Your task to perform on an android device: turn off airplane mode Image 0: 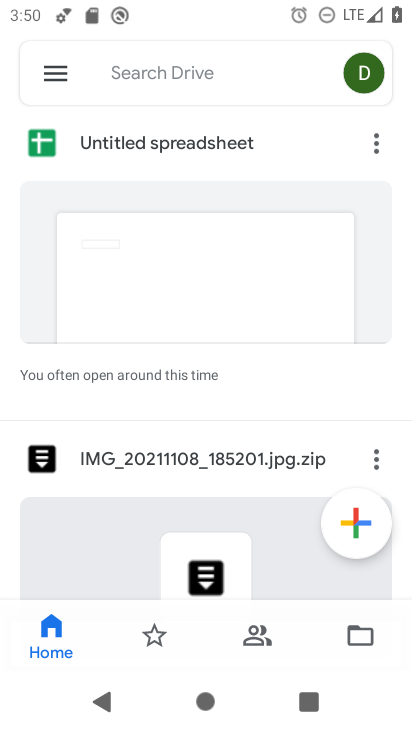
Step 0: press home button
Your task to perform on an android device: turn off airplane mode Image 1: 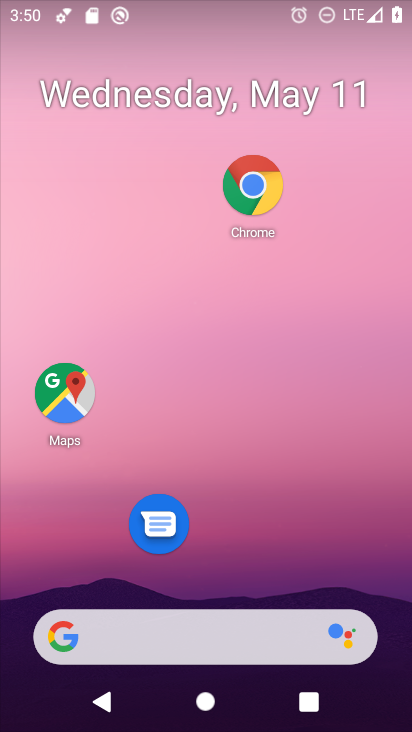
Step 1: drag from (277, 542) to (293, 57)
Your task to perform on an android device: turn off airplane mode Image 2: 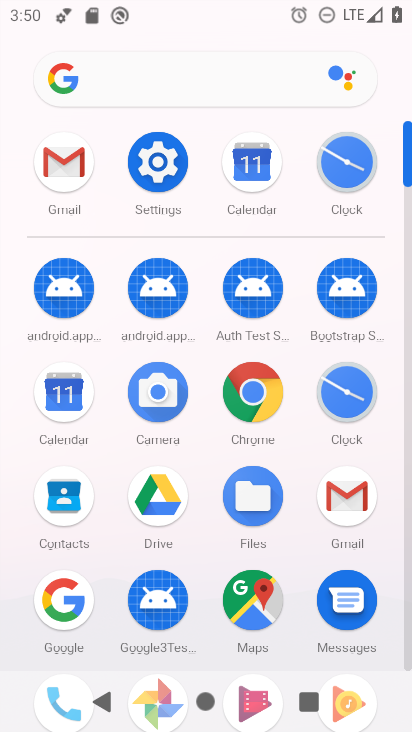
Step 2: click (159, 164)
Your task to perform on an android device: turn off airplane mode Image 3: 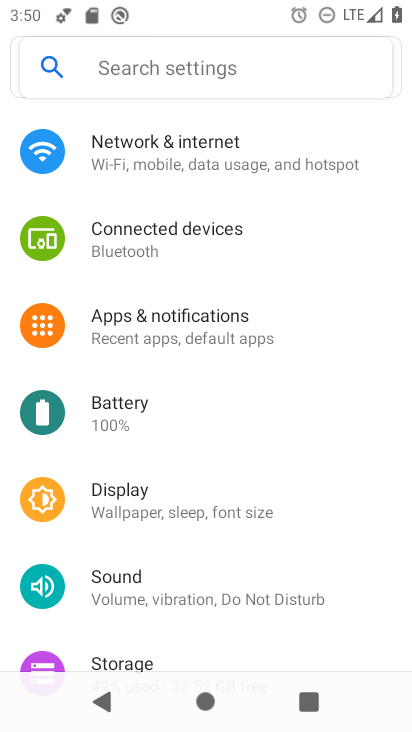
Step 3: click (259, 159)
Your task to perform on an android device: turn off airplane mode Image 4: 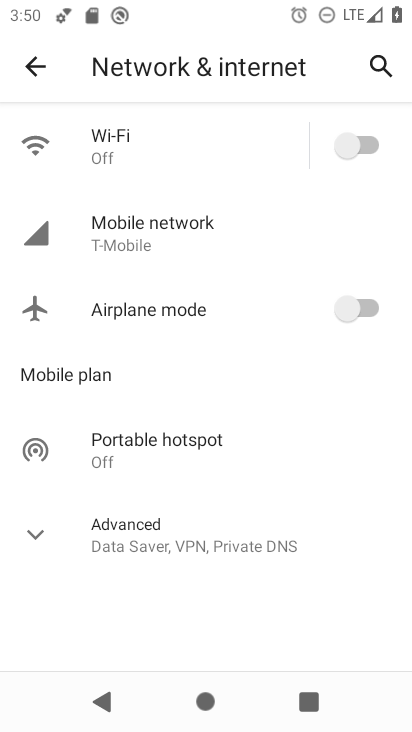
Step 4: task complete